Your task to perform on an android device: search for starred emails in the gmail app Image 0: 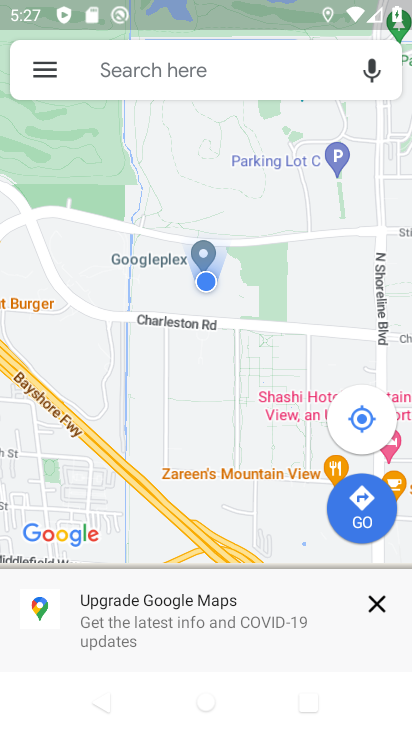
Step 0: press home button
Your task to perform on an android device: search for starred emails in the gmail app Image 1: 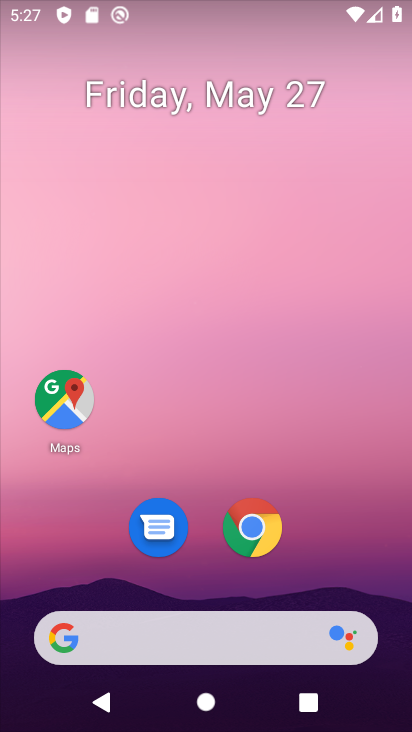
Step 1: drag from (317, 577) to (285, 142)
Your task to perform on an android device: search for starred emails in the gmail app Image 2: 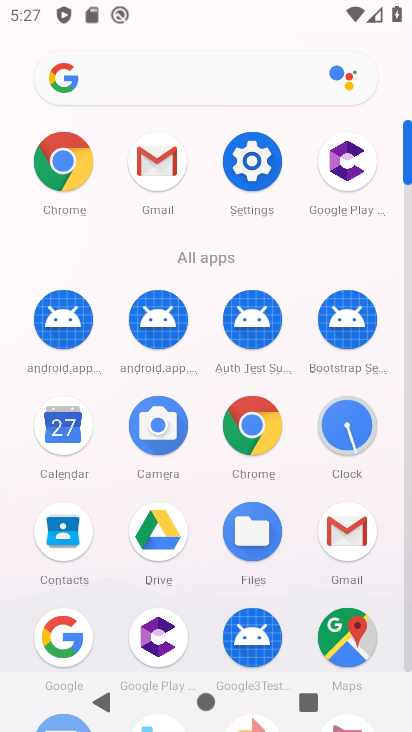
Step 2: click (158, 177)
Your task to perform on an android device: search for starred emails in the gmail app Image 3: 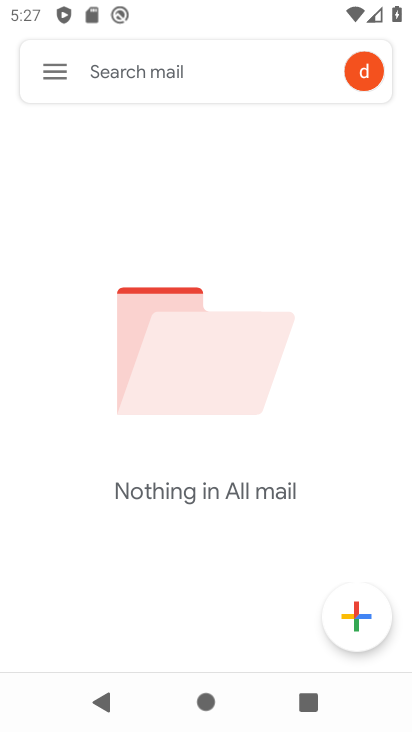
Step 3: click (56, 82)
Your task to perform on an android device: search for starred emails in the gmail app Image 4: 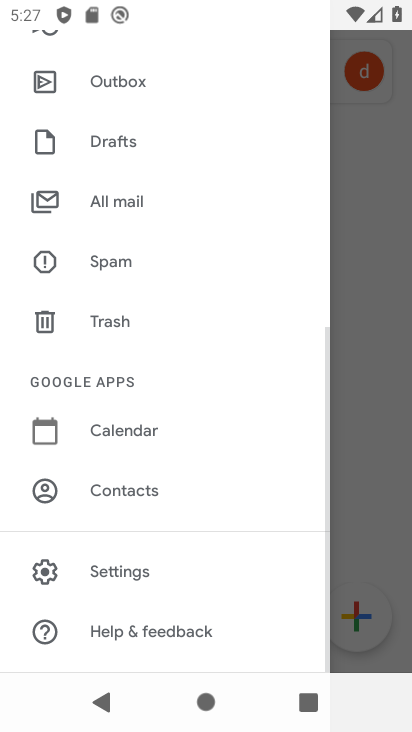
Step 4: drag from (169, 163) to (191, 516)
Your task to perform on an android device: search for starred emails in the gmail app Image 5: 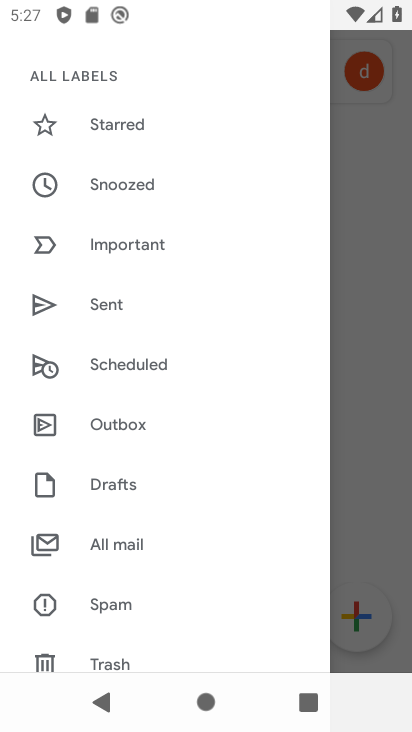
Step 5: click (115, 122)
Your task to perform on an android device: search for starred emails in the gmail app Image 6: 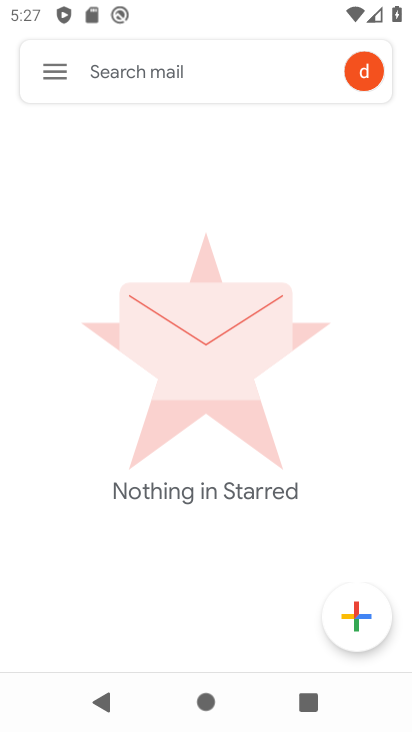
Step 6: task complete